Your task to perform on an android device: Do I have any events today? Image 0: 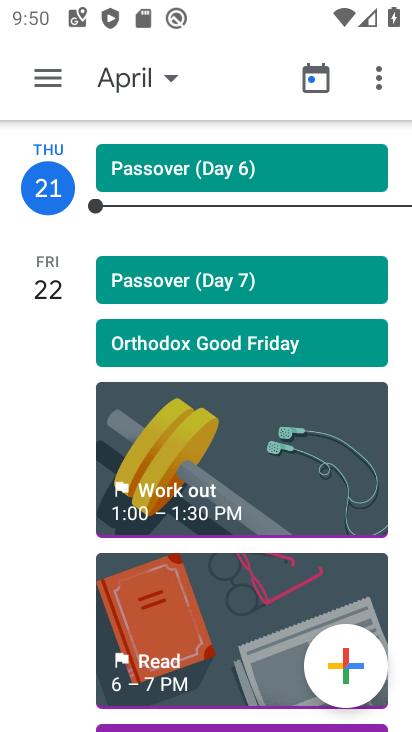
Step 0: click (55, 89)
Your task to perform on an android device: Do I have any events today? Image 1: 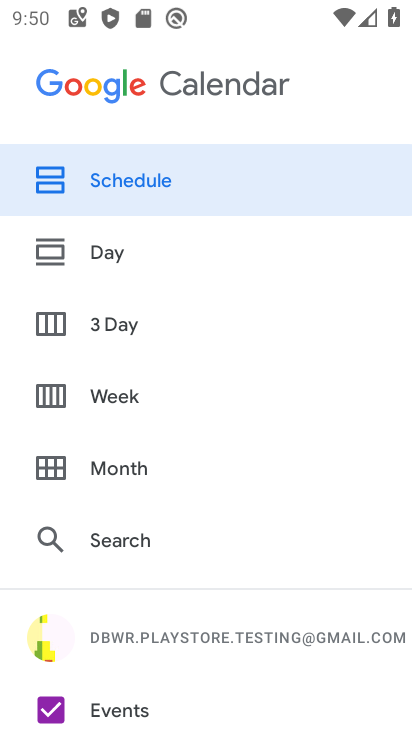
Step 1: click (121, 174)
Your task to perform on an android device: Do I have any events today? Image 2: 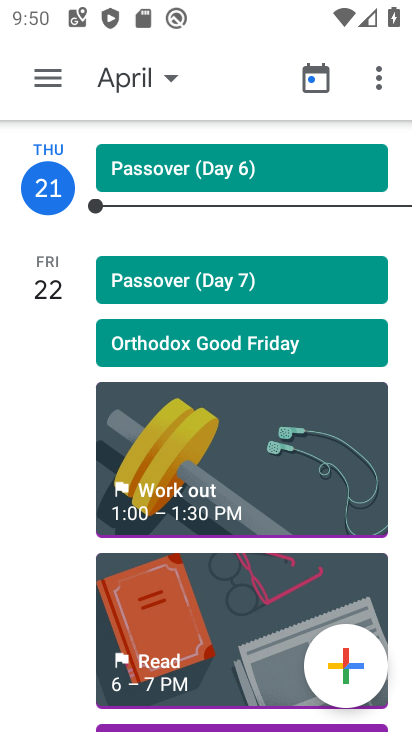
Step 2: task complete